Your task to perform on an android device: Open Reddit.com Image 0: 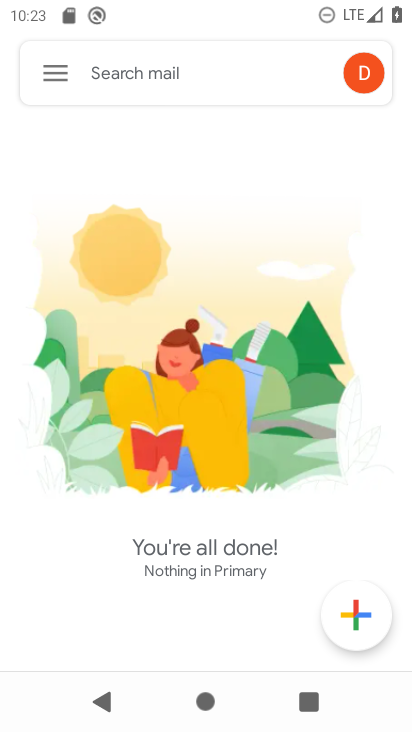
Step 0: press home button
Your task to perform on an android device: Open Reddit.com Image 1: 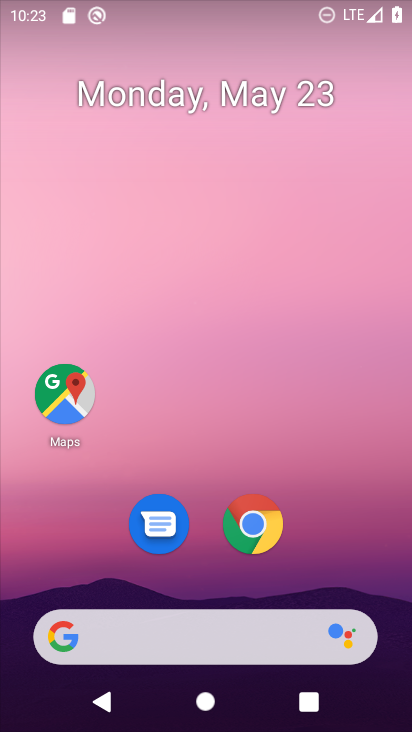
Step 1: click (223, 632)
Your task to perform on an android device: Open Reddit.com Image 2: 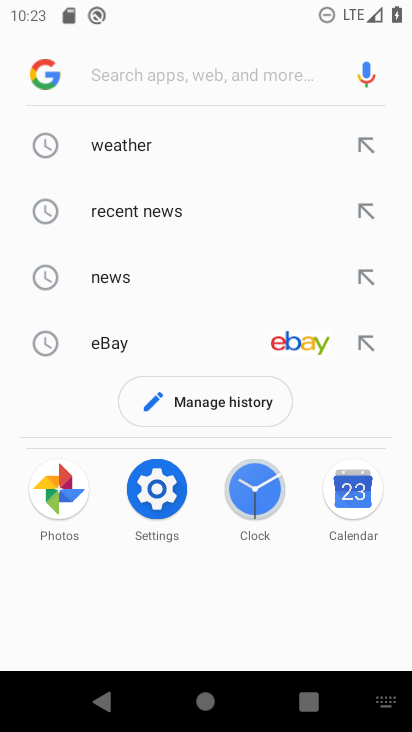
Step 2: type "reddit.com"
Your task to perform on an android device: Open Reddit.com Image 3: 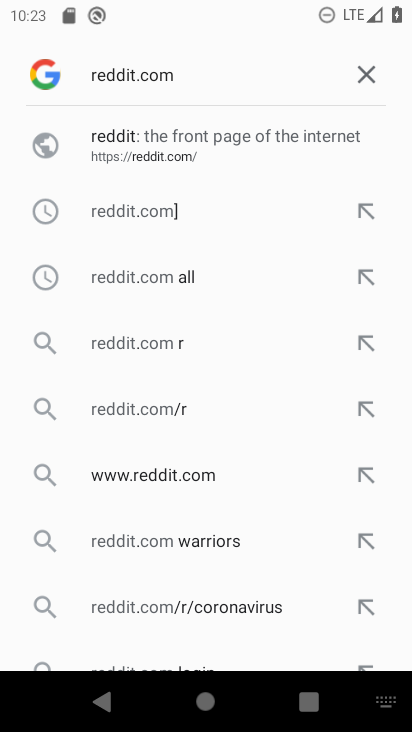
Step 3: click (114, 136)
Your task to perform on an android device: Open Reddit.com Image 4: 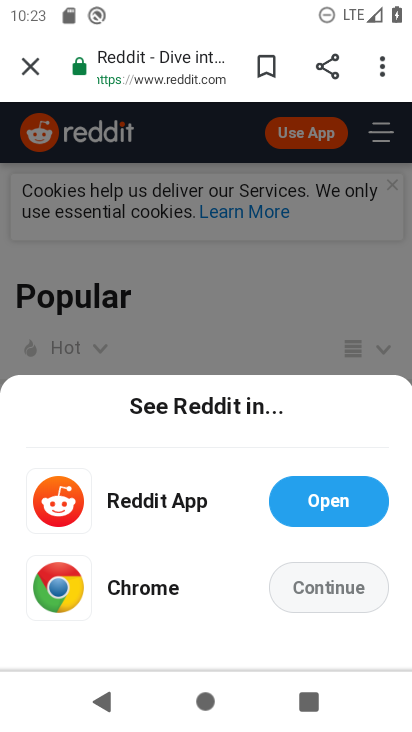
Step 4: task complete